Your task to perform on an android device: Open privacy settings Image 0: 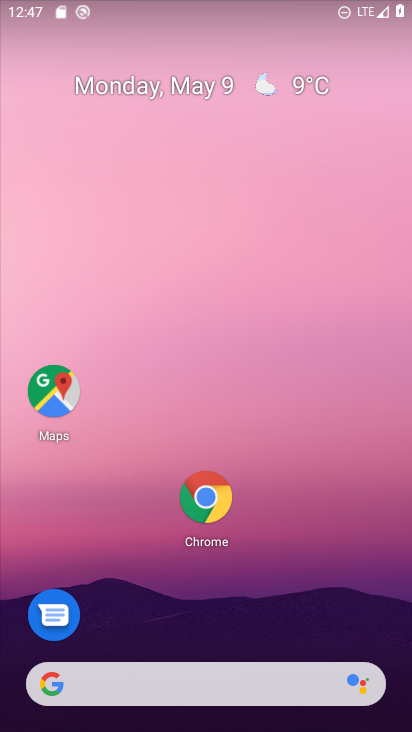
Step 0: drag from (274, 604) to (258, 45)
Your task to perform on an android device: Open privacy settings Image 1: 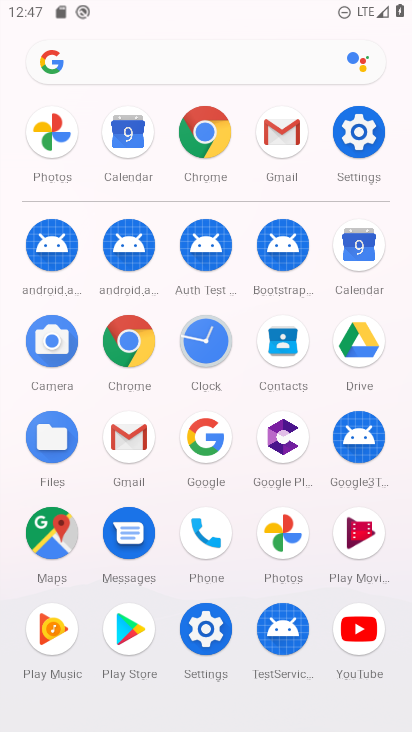
Step 1: click (373, 116)
Your task to perform on an android device: Open privacy settings Image 2: 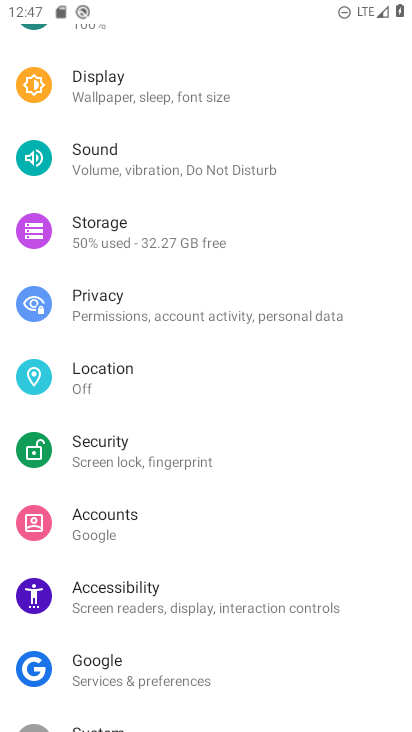
Step 2: drag from (223, 670) to (256, 123)
Your task to perform on an android device: Open privacy settings Image 3: 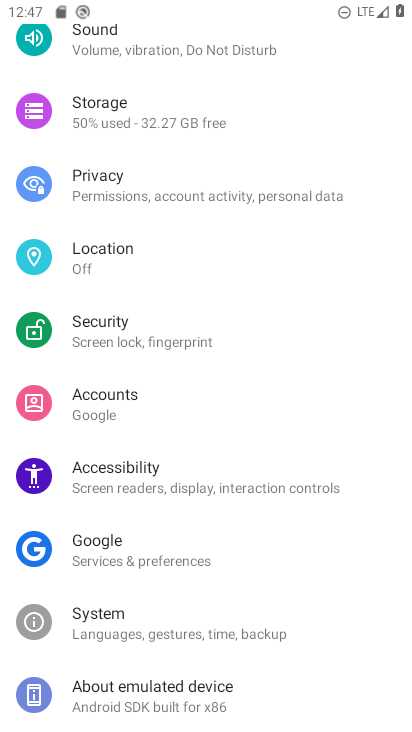
Step 3: click (148, 190)
Your task to perform on an android device: Open privacy settings Image 4: 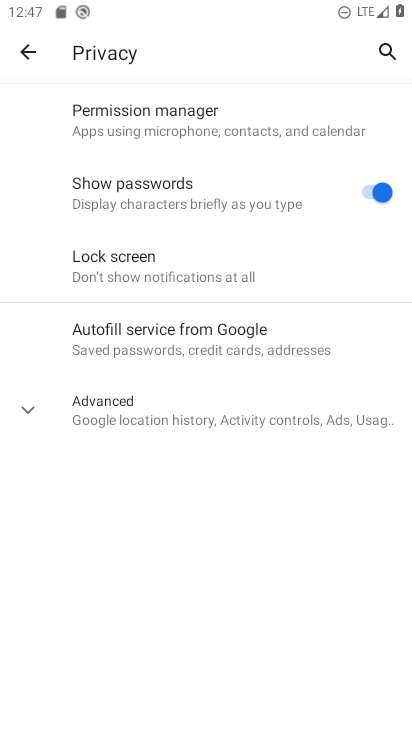
Step 4: task complete